Your task to perform on an android device: Empty the shopping cart on amazon. Search for "razer blade" on amazon, select the first entry, and add it to the cart. Image 0: 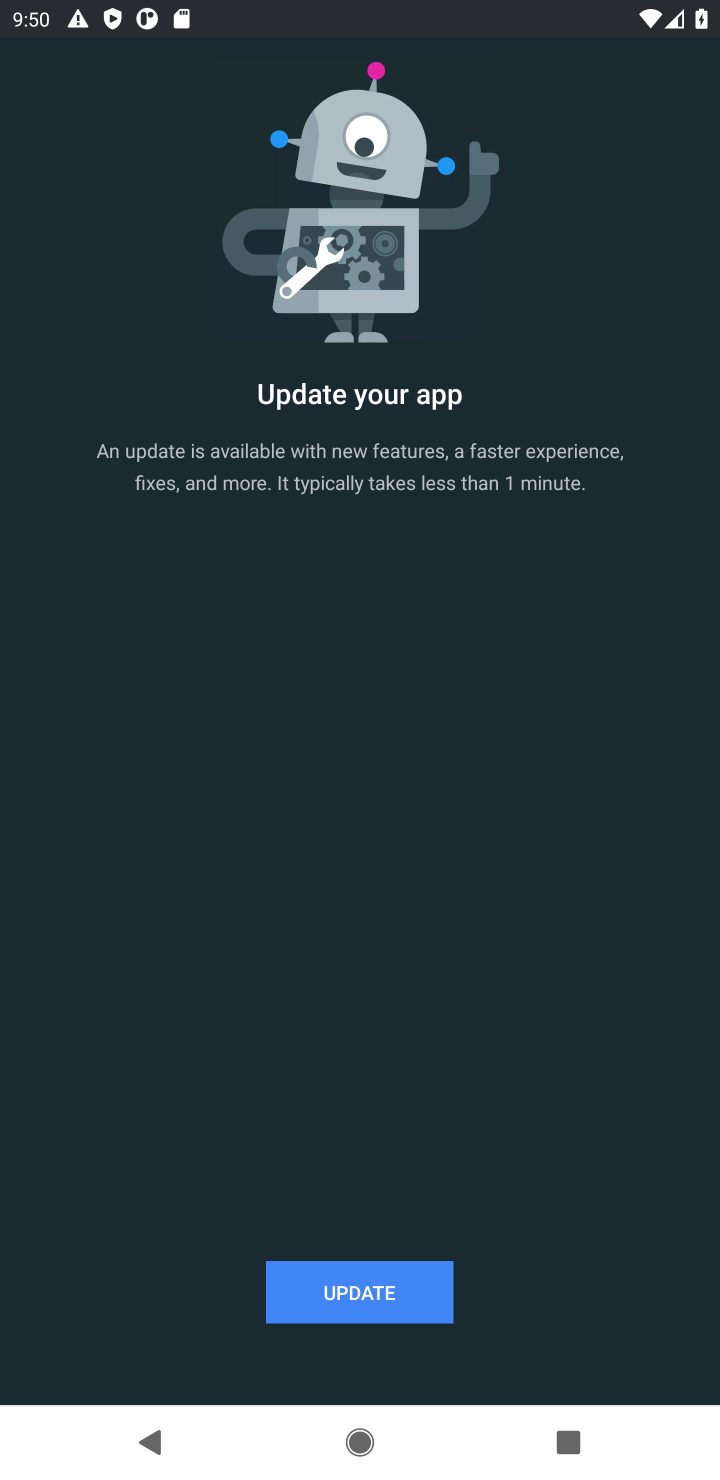
Step 0: press home button
Your task to perform on an android device: Empty the shopping cart on amazon. Search for "razer blade" on amazon, select the first entry, and add it to the cart. Image 1: 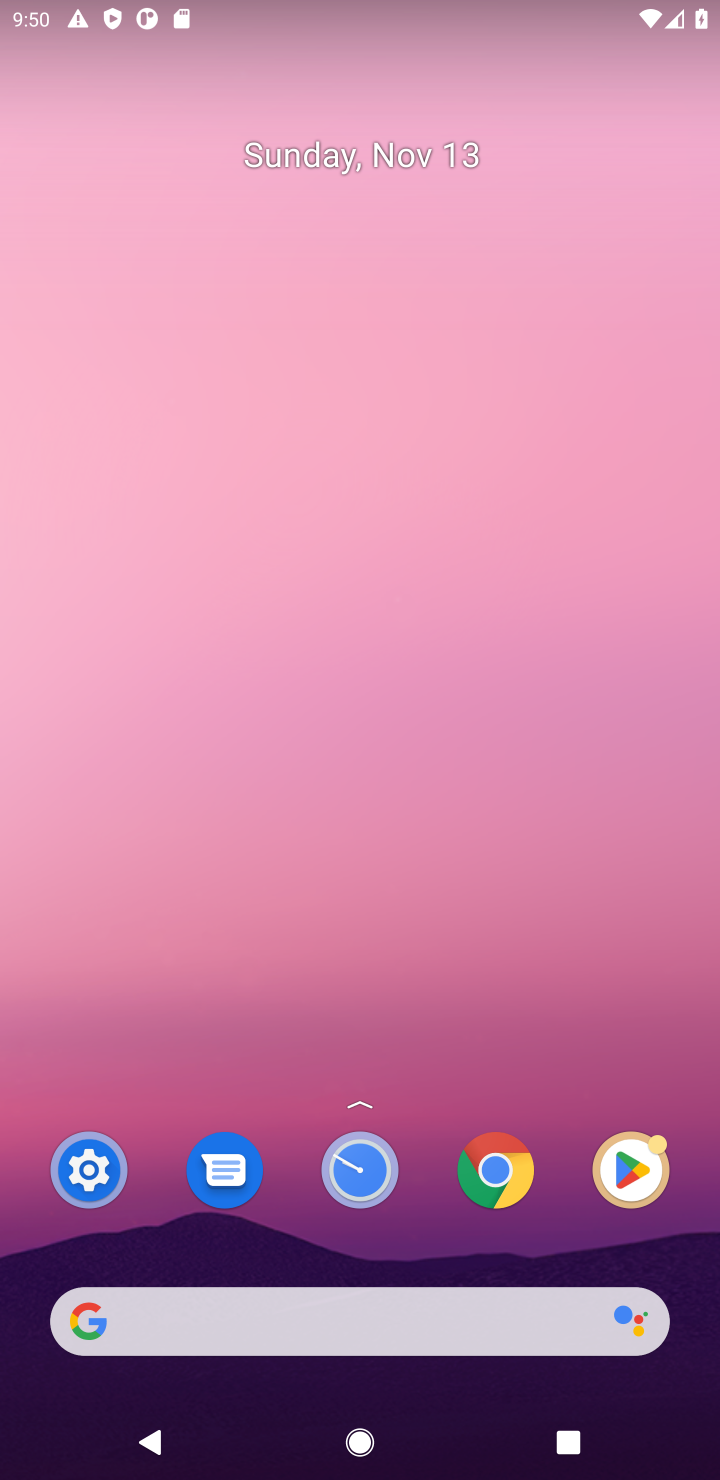
Step 1: click (387, 1306)
Your task to perform on an android device: Empty the shopping cart on amazon. Search for "razer blade" on amazon, select the first entry, and add it to the cart. Image 2: 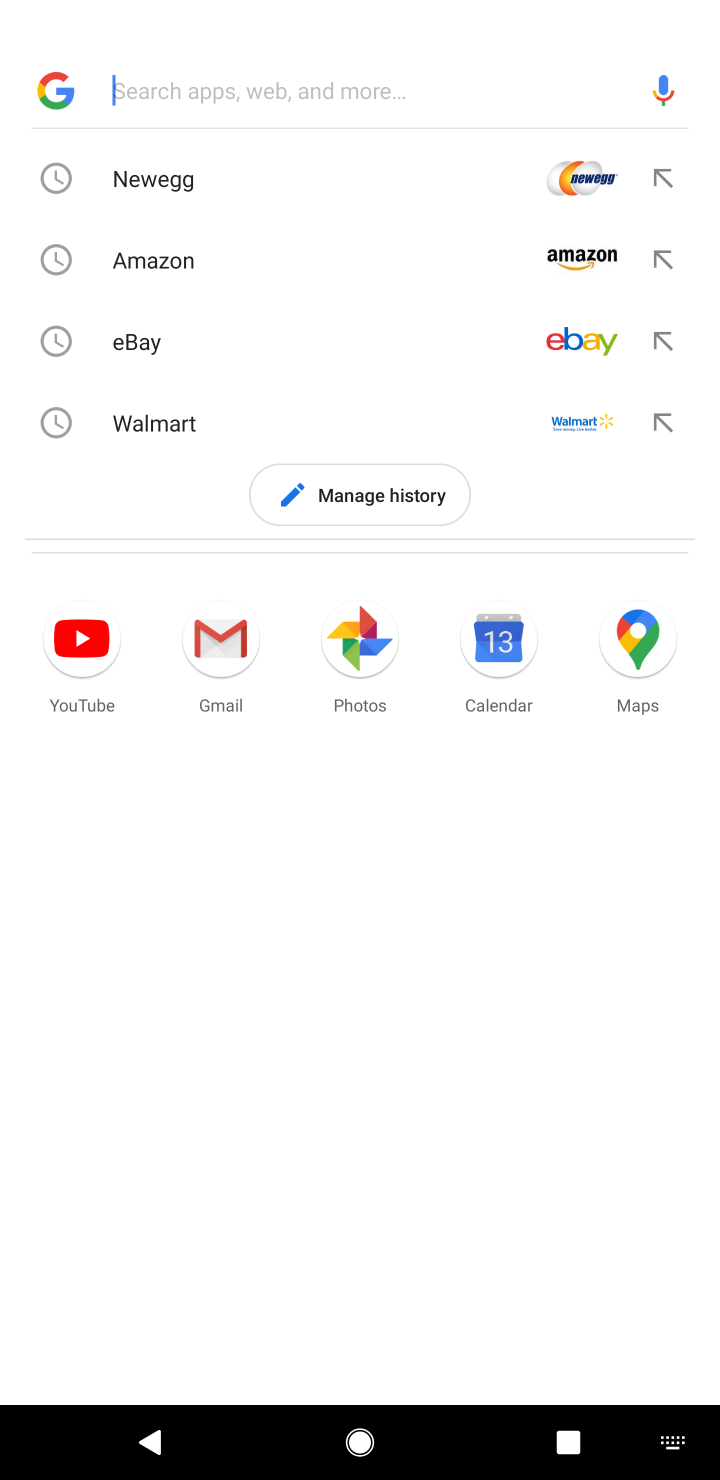
Step 2: type "amazon"
Your task to perform on an android device: Empty the shopping cart on amazon. Search for "razer blade" on amazon, select the first entry, and add it to the cart. Image 3: 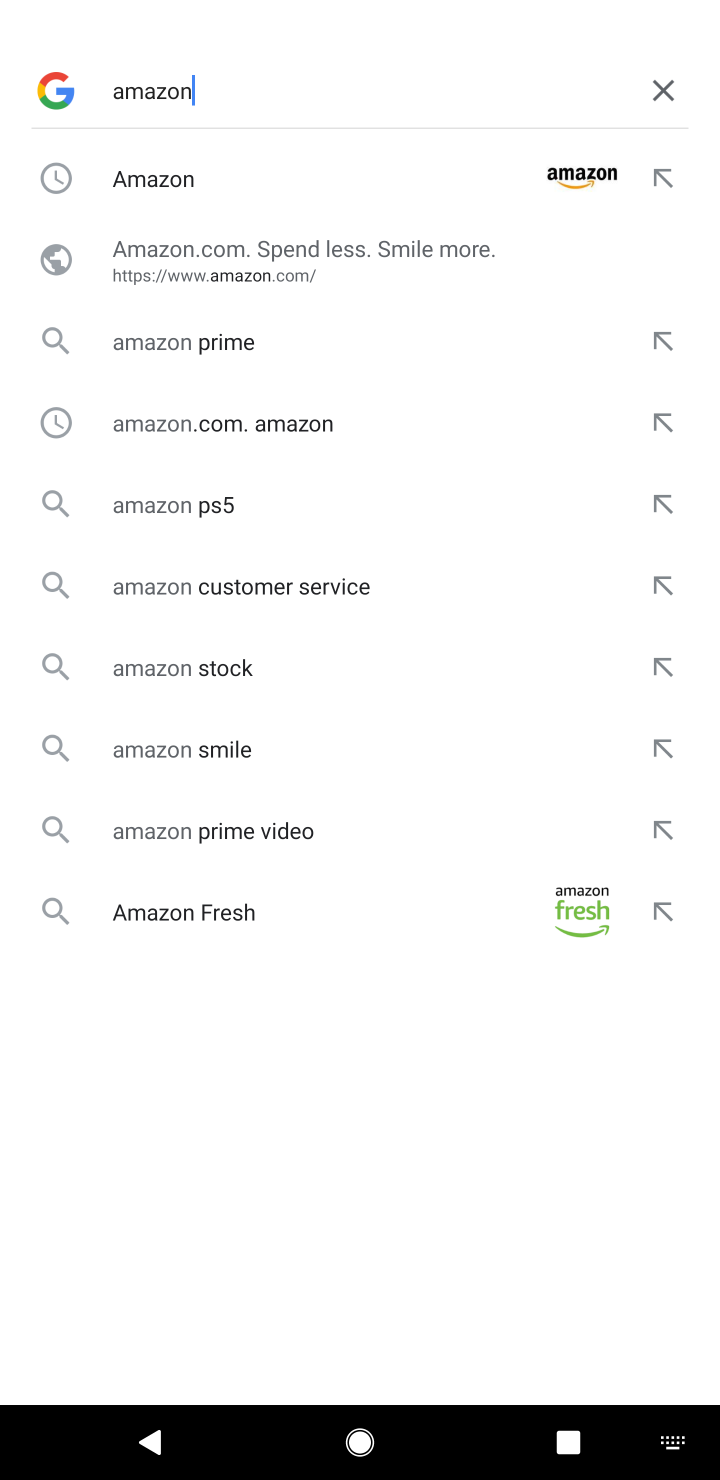
Step 3: click (290, 146)
Your task to perform on an android device: Empty the shopping cart on amazon. Search for "razer blade" on amazon, select the first entry, and add it to the cart. Image 4: 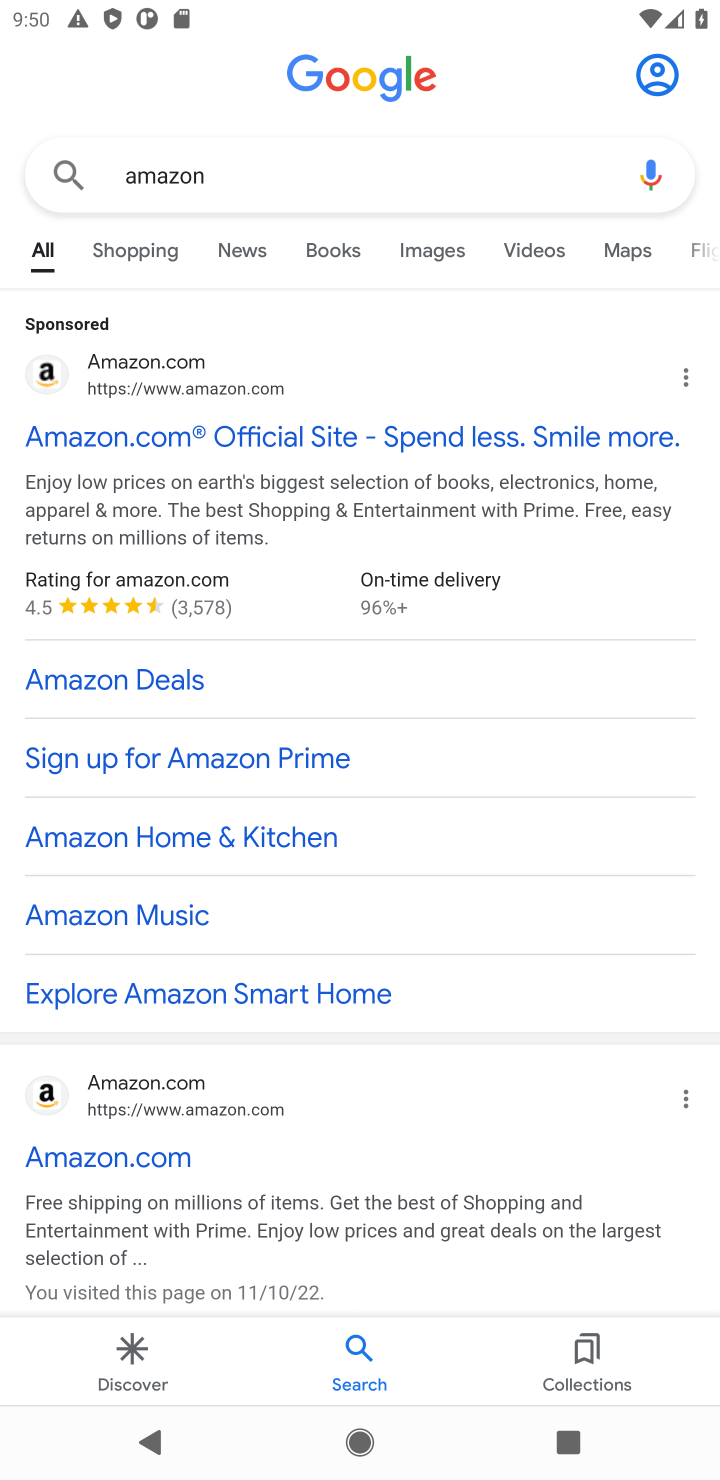
Step 4: click (135, 393)
Your task to perform on an android device: Empty the shopping cart on amazon. Search for "razer blade" on amazon, select the first entry, and add it to the cart. Image 5: 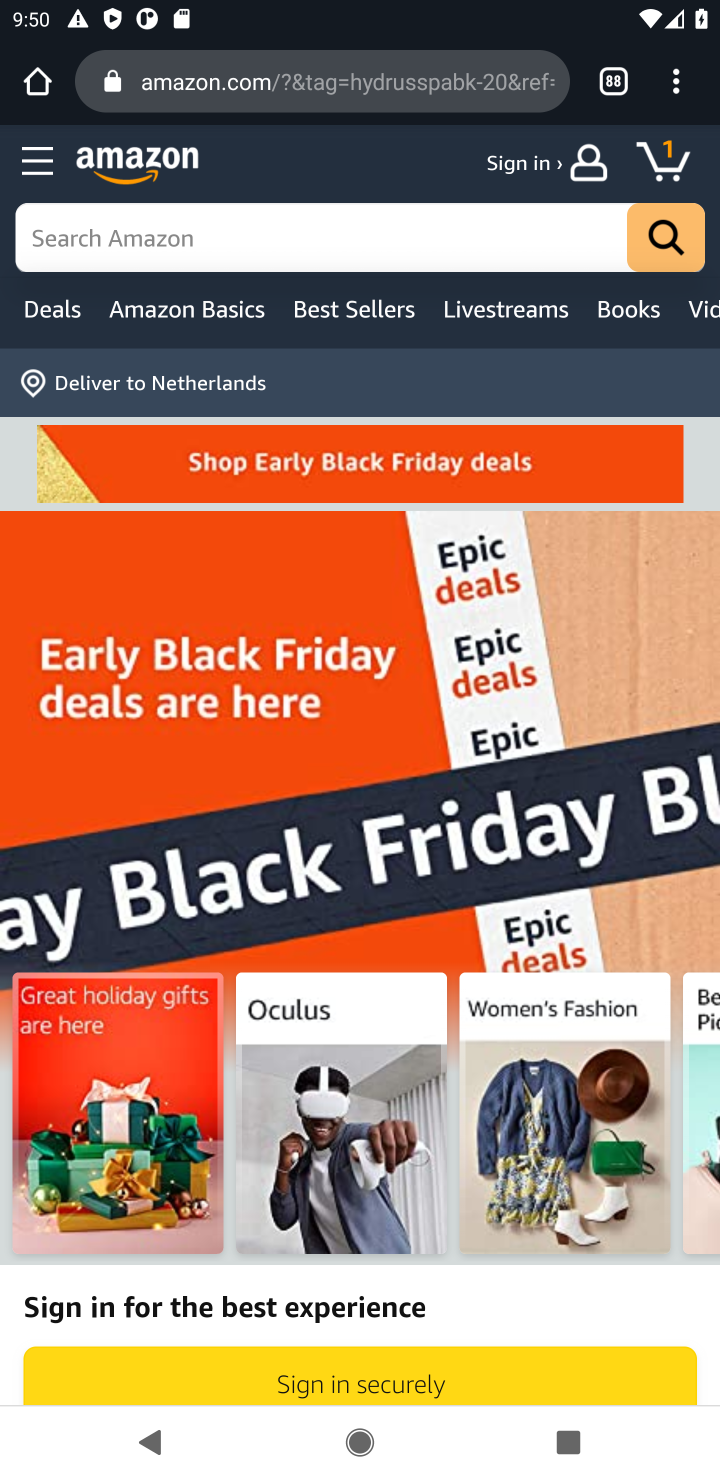
Step 5: click (288, 261)
Your task to perform on an android device: Empty the shopping cart on amazon. Search for "razer blade" on amazon, select the first entry, and add it to the cart. Image 6: 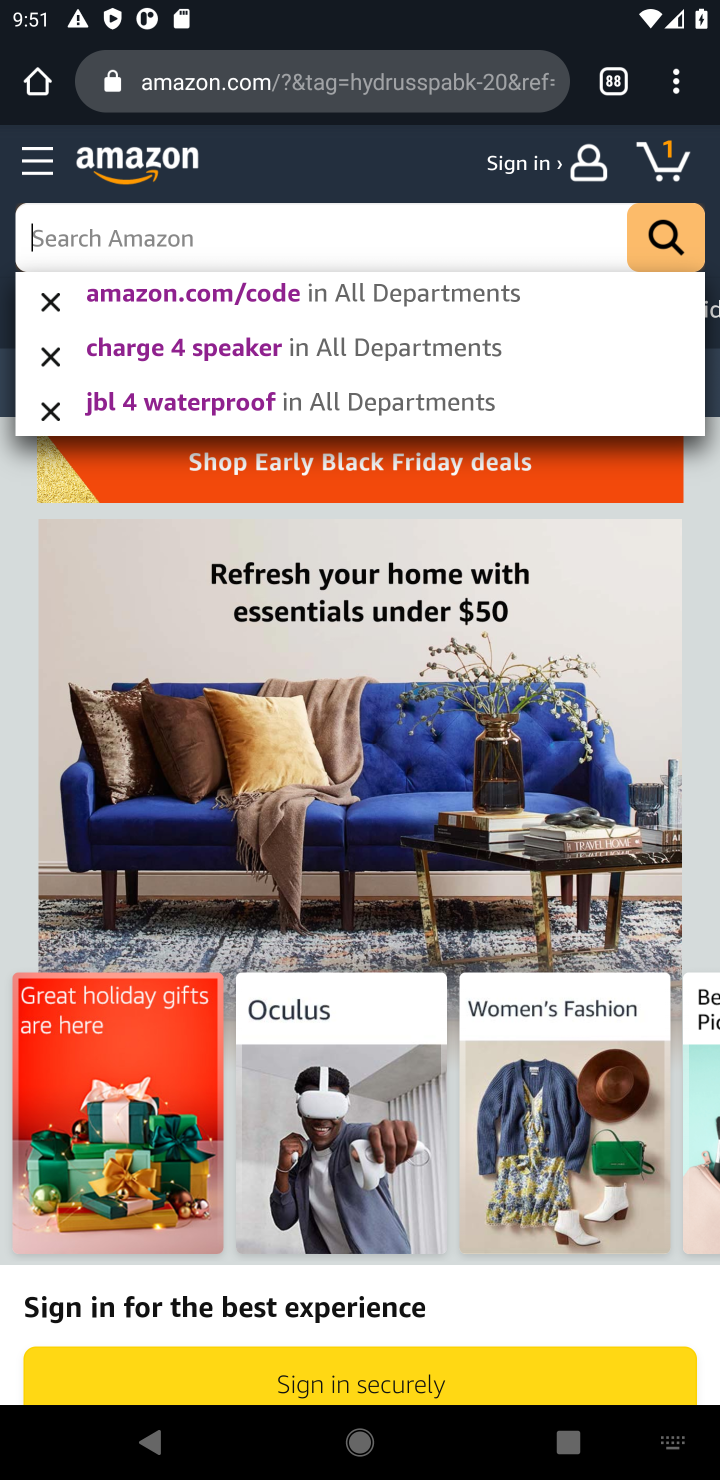
Step 6: type "razer blade"
Your task to perform on an android device: Empty the shopping cart on amazon. Search for "razer blade" on amazon, select the first entry, and add it to the cart. Image 7: 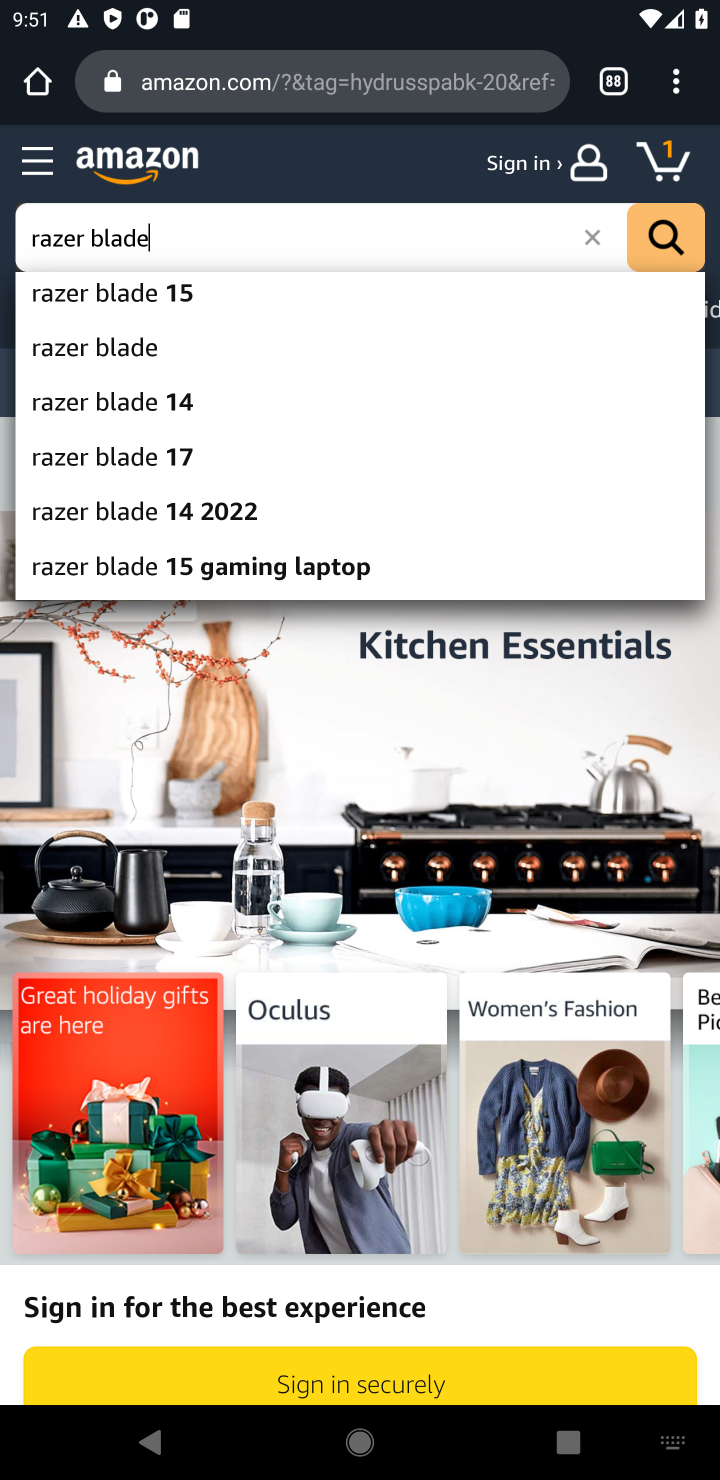
Step 7: click (120, 356)
Your task to perform on an android device: Empty the shopping cart on amazon. Search for "razer blade" on amazon, select the first entry, and add it to the cart. Image 8: 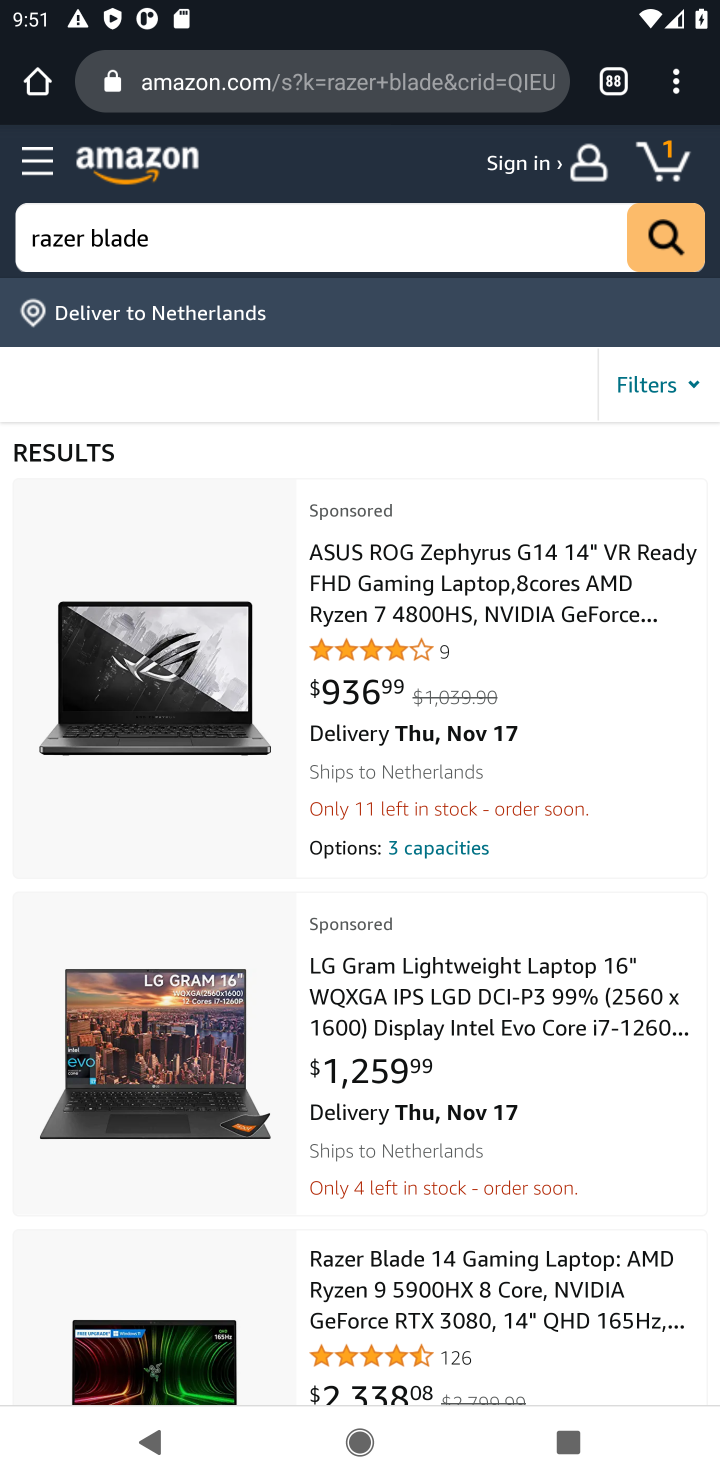
Step 8: task complete